Your task to perform on an android device: clear all cookies in the chrome app Image 0: 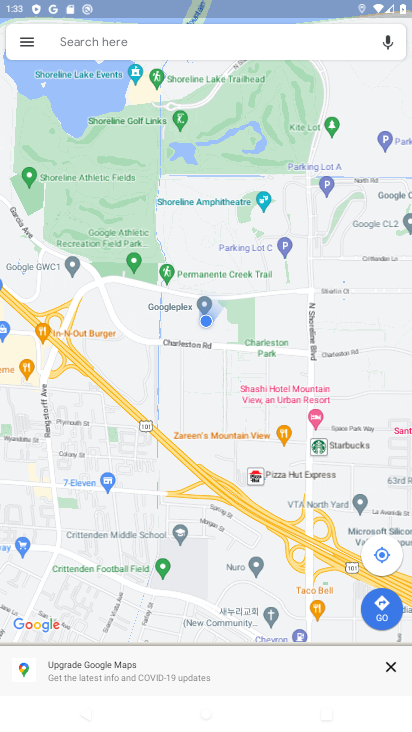
Step 0: press home button
Your task to perform on an android device: clear all cookies in the chrome app Image 1: 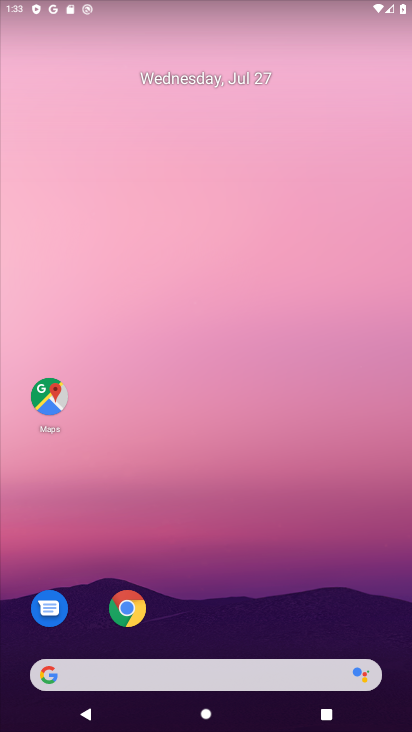
Step 1: click (129, 604)
Your task to perform on an android device: clear all cookies in the chrome app Image 2: 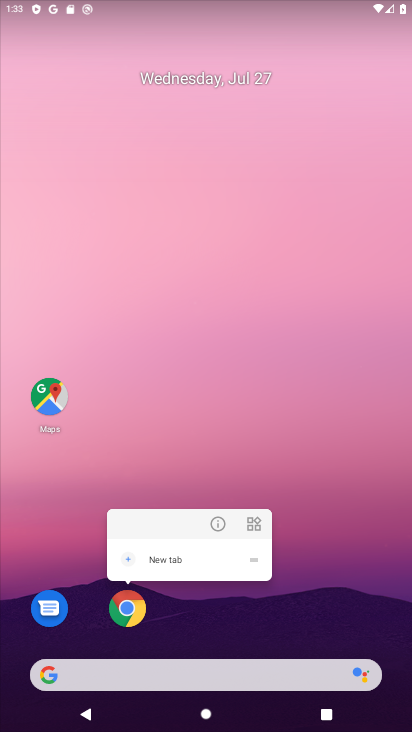
Step 2: click (129, 604)
Your task to perform on an android device: clear all cookies in the chrome app Image 3: 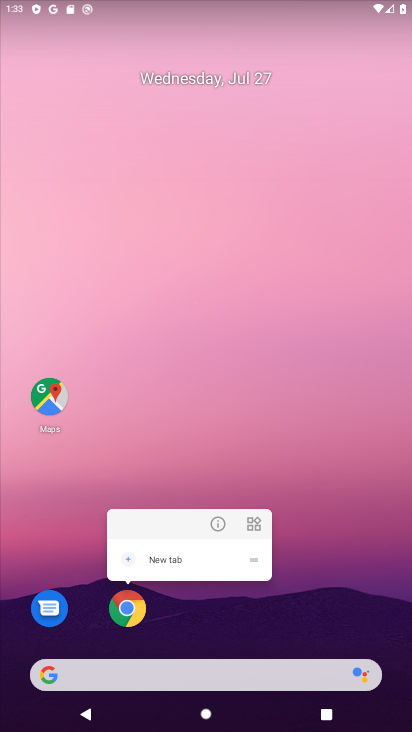
Step 3: click (133, 606)
Your task to perform on an android device: clear all cookies in the chrome app Image 4: 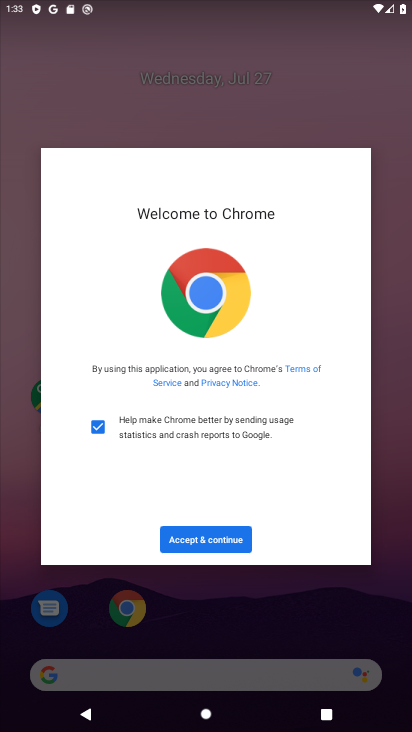
Step 4: click (210, 541)
Your task to perform on an android device: clear all cookies in the chrome app Image 5: 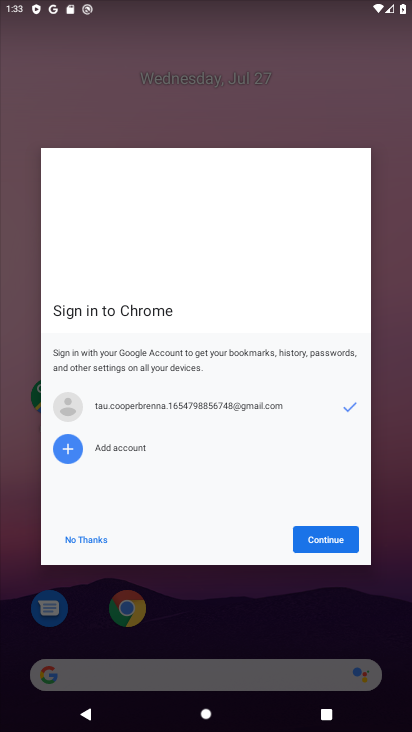
Step 5: click (304, 534)
Your task to perform on an android device: clear all cookies in the chrome app Image 6: 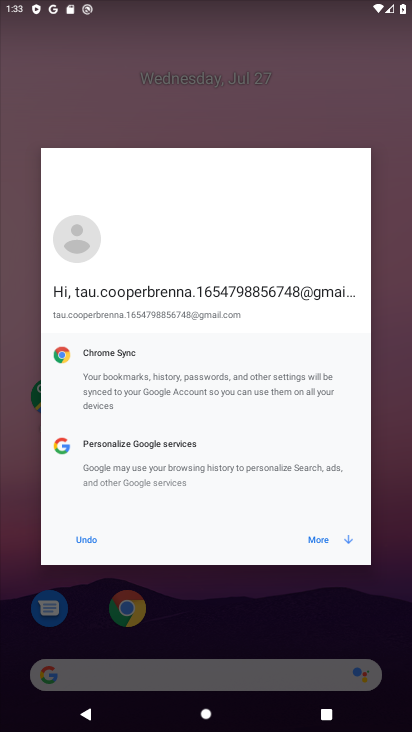
Step 6: click (323, 545)
Your task to perform on an android device: clear all cookies in the chrome app Image 7: 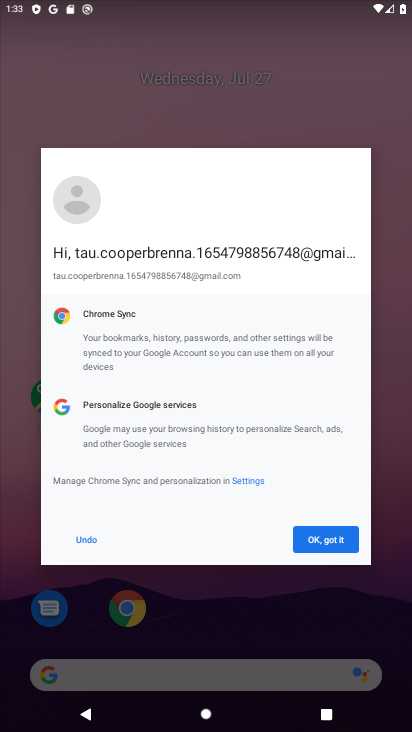
Step 7: click (316, 534)
Your task to perform on an android device: clear all cookies in the chrome app Image 8: 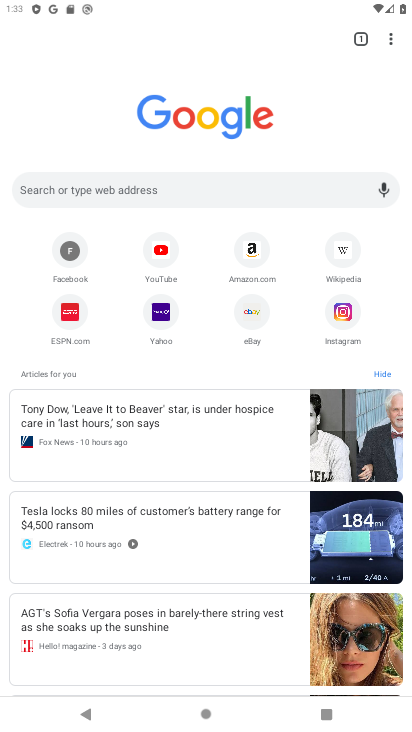
Step 8: click (393, 35)
Your task to perform on an android device: clear all cookies in the chrome app Image 9: 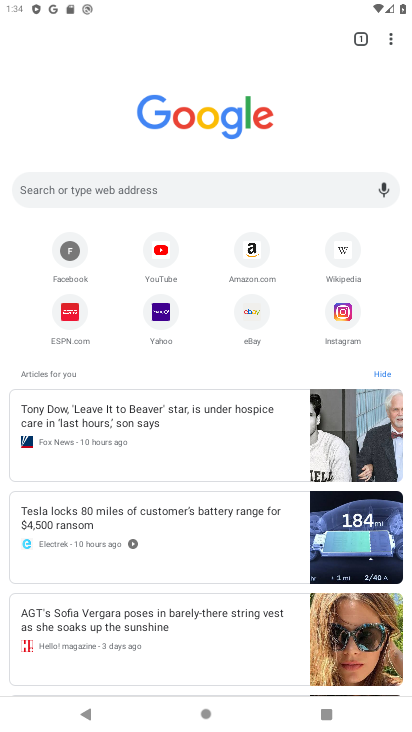
Step 9: click (397, 32)
Your task to perform on an android device: clear all cookies in the chrome app Image 10: 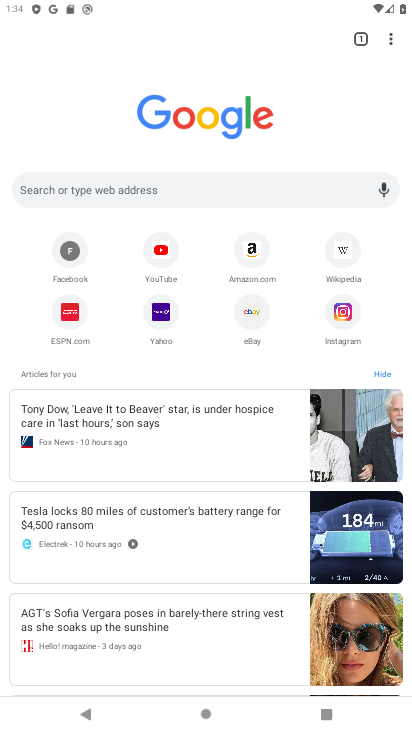
Step 10: click (388, 39)
Your task to perform on an android device: clear all cookies in the chrome app Image 11: 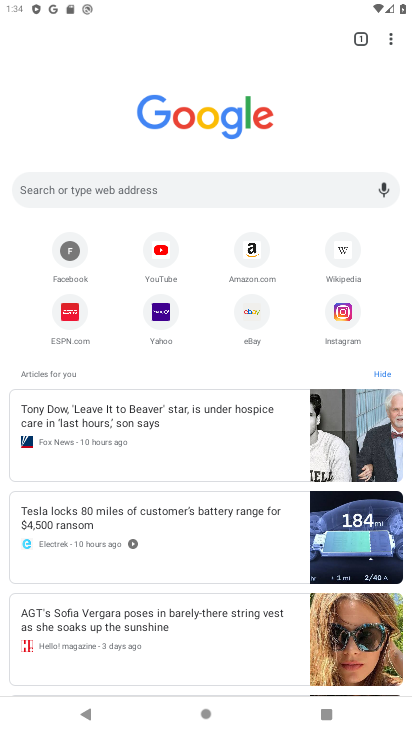
Step 11: task complete